Your task to perform on an android device: check android version Image 0: 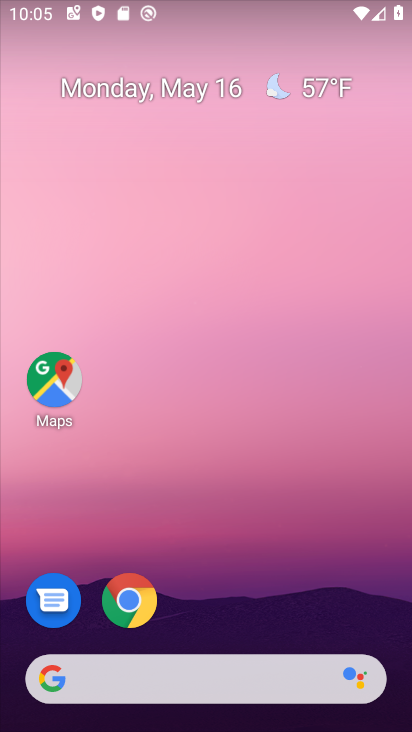
Step 0: drag from (341, 589) to (357, 226)
Your task to perform on an android device: check android version Image 1: 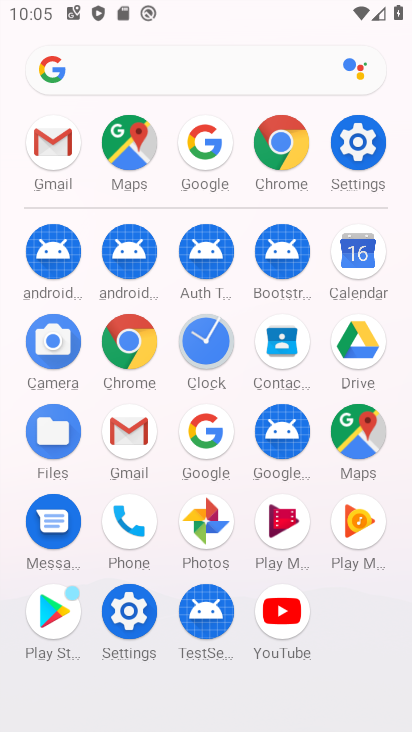
Step 1: click (346, 147)
Your task to perform on an android device: check android version Image 2: 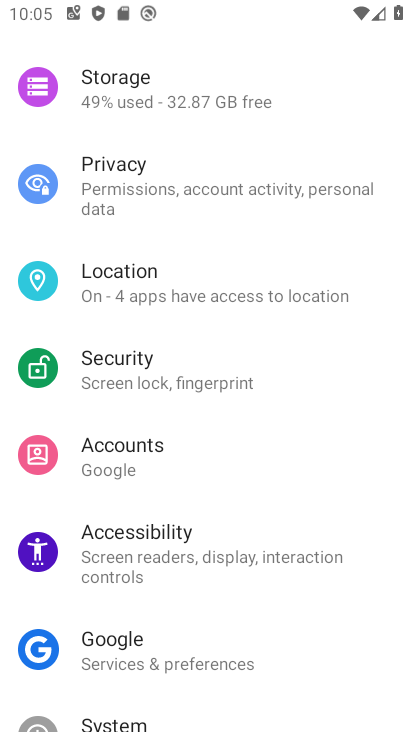
Step 2: drag from (315, 655) to (307, 287)
Your task to perform on an android device: check android version Image 3: 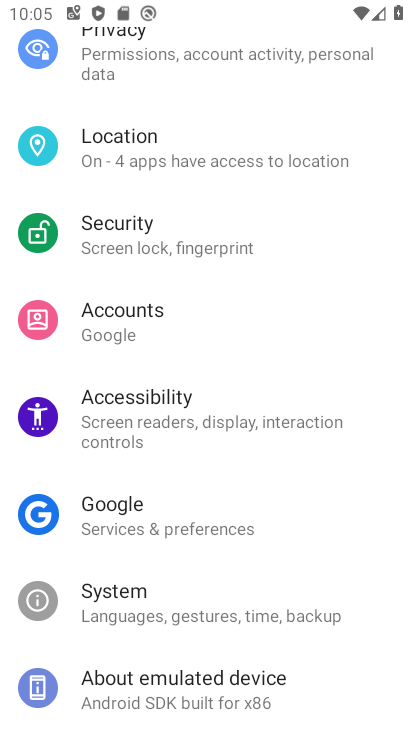
Step 3: click (260, 683)
Your task to perform on an android device: check android version Image 4: 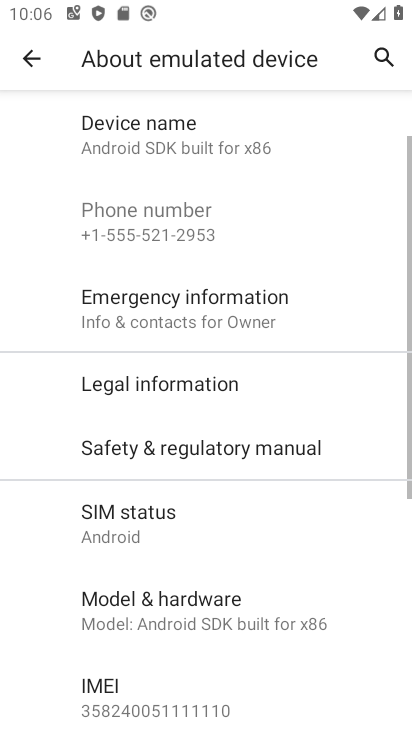
Step 4: drag from (263, 655) to (273, 284)
Your task to perform on an android device: check android version Image 5: 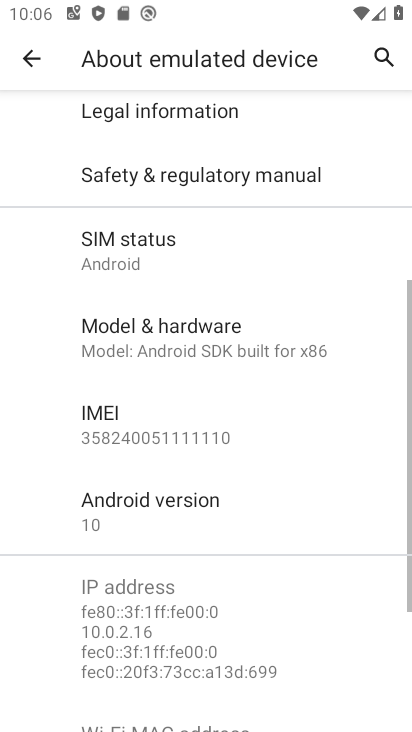
Step 5: click (177, 506)
Your task to perform on an android device: check android version Image 6: 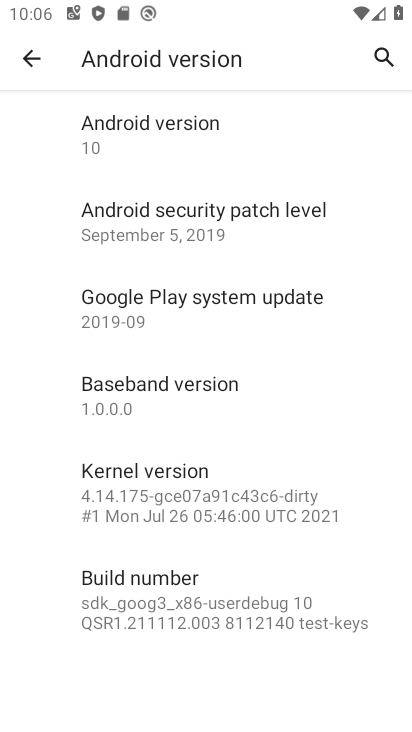
Step 6: task complete